Your task to perform on an android device: move an email to a new category in the gmail app Image 0: 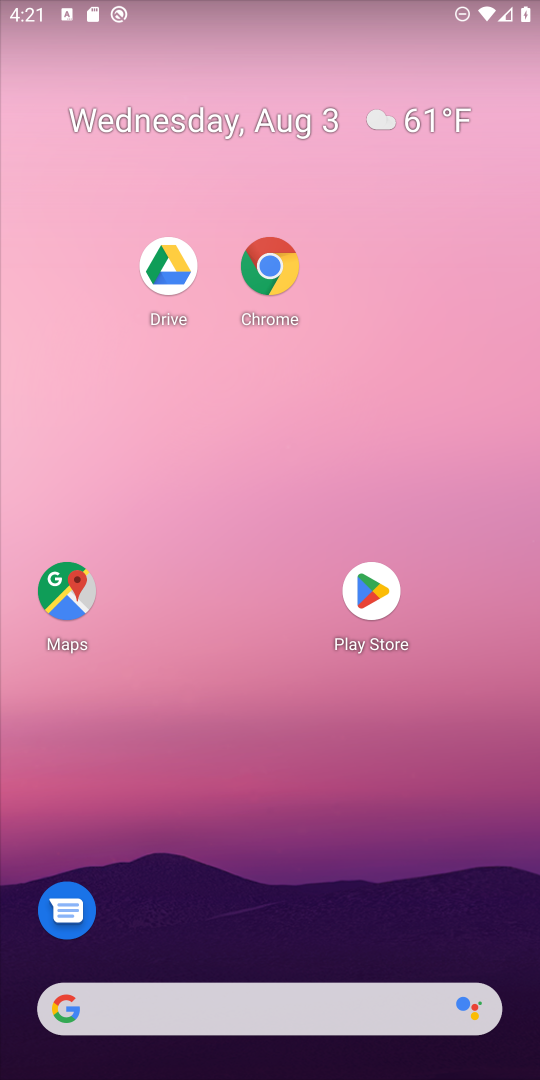
Step 0: drag from (349, 1003) to (474, 10)
Your task to perform on an android device: move an email to a new category in the gmail app Image 1: 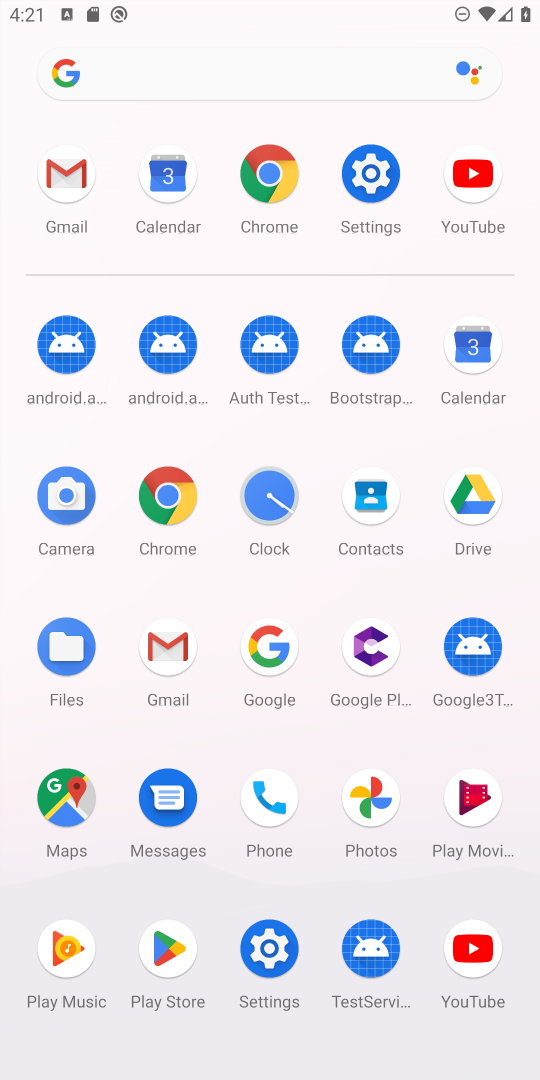
Step 1: click (189, 628)
Your task to perform on an android device: move an email to a new category in the gmail app Image 2: 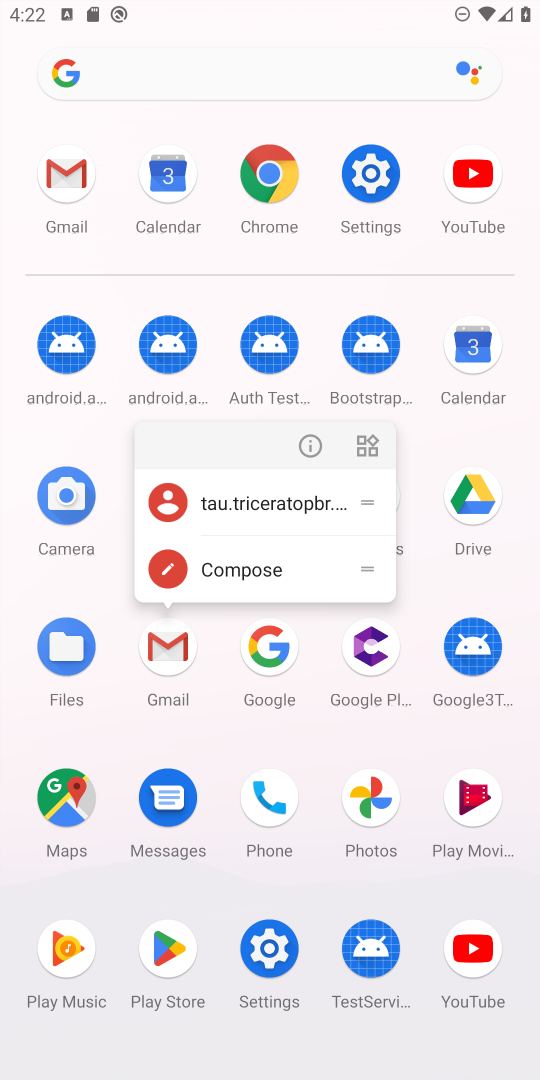
Step 2: click (168, 664)
Your task to perform on an android device: move an email to a new category in the gmail app Image 3: 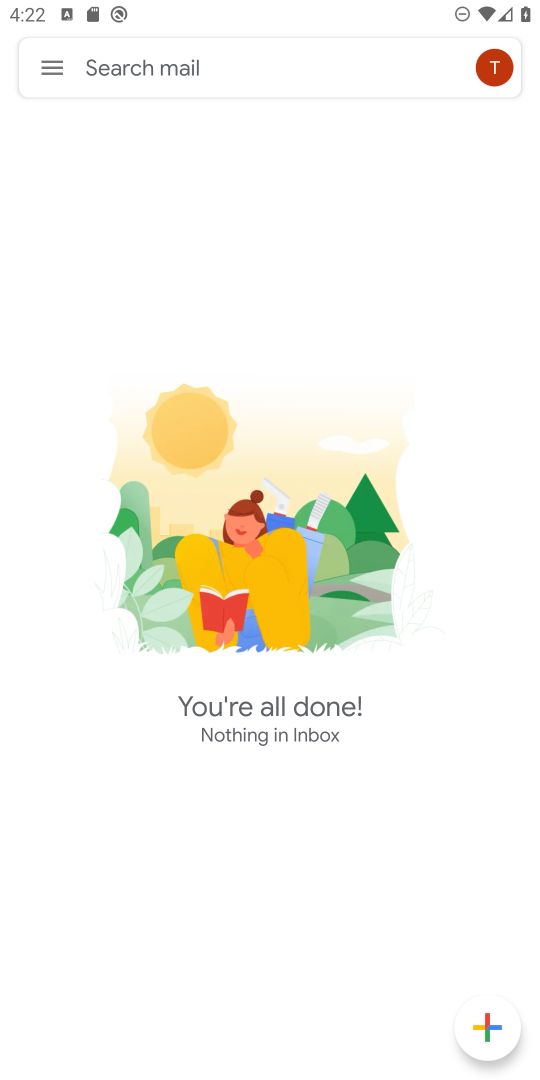
Step 3: task complete